Your task to perform on an android device: toggle pop-ups in chrome Image 0: 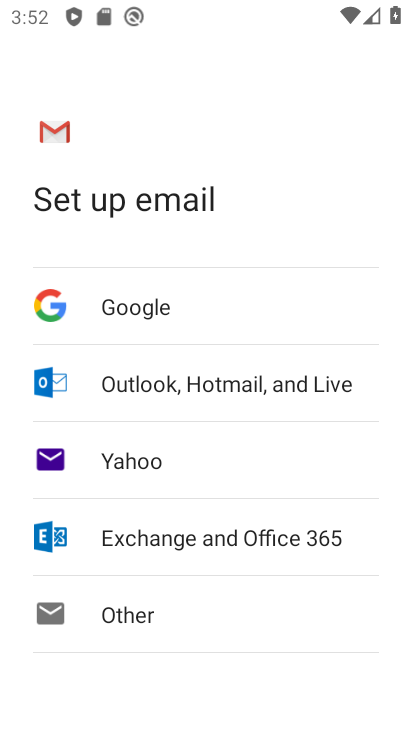
Step 0: press back button
Your task to perform on an android device: toggle pop-ups in chrome Image 1: 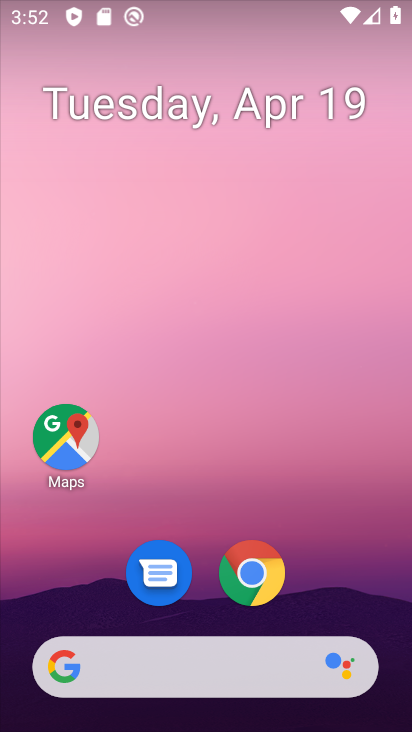
Step 1: click (239, 578)
Your task to perform on an android device: toggle pop-ups in chrome Image 2: 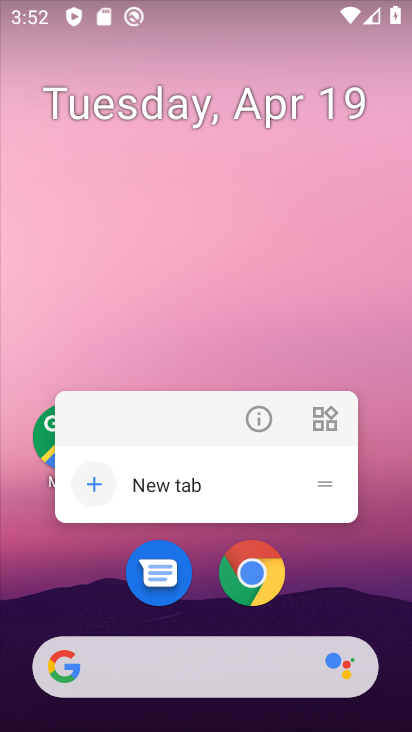
Step 2: click (249, 579)
Your task to perform on an android device: toggle pop-ups in chrome Image 3: 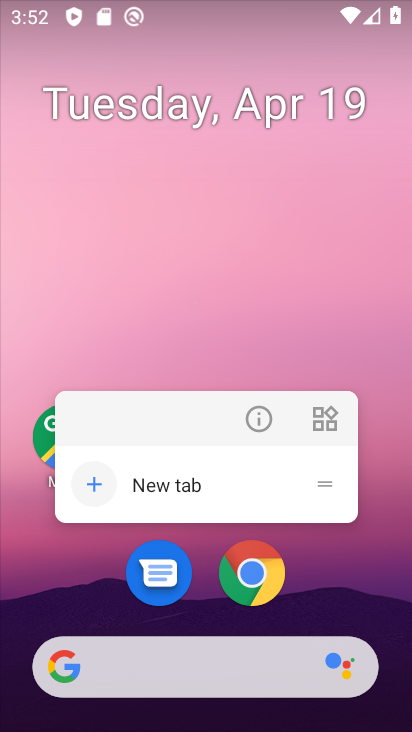
Step 3: click (262, 591)
Your task to perform on an android device: toggle pop-ups in chrome Image 4: 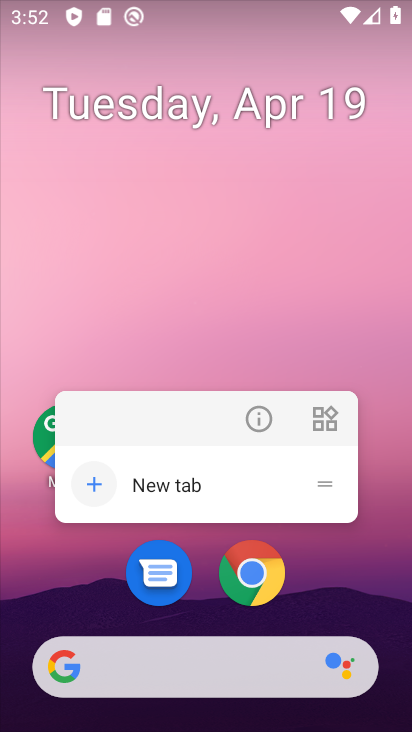
Step 4: click (262, 591)
Your task to perform on an android device: toggle pop-ups in chrome Image 5: 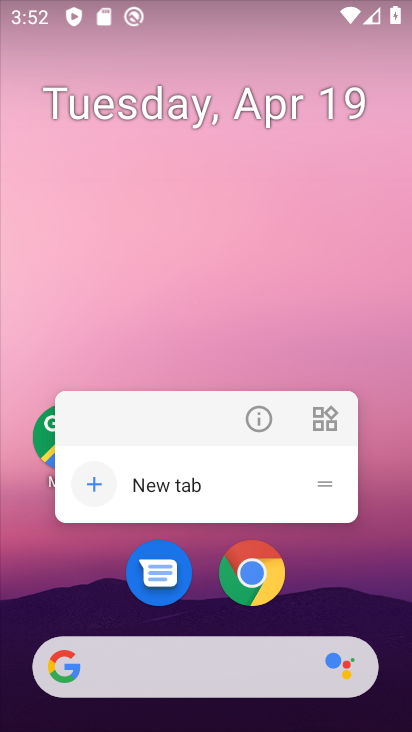
Step 5: click (261, 573)
Your task to perform on an android device: toggle pop-ups in chrome Image 6: 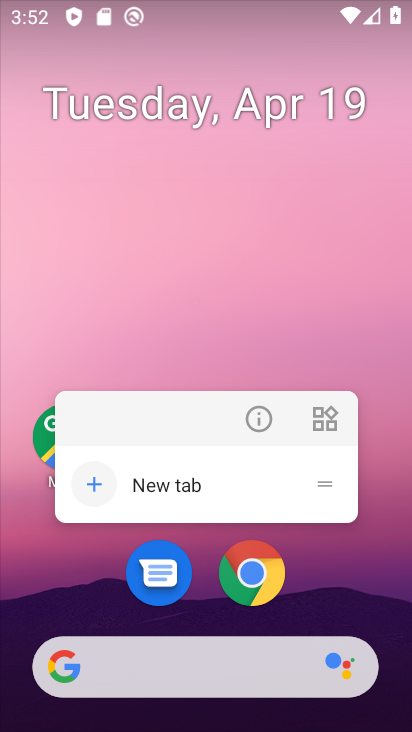
Step 6: click (254, 566)
Your task to perform on an android device: toggle pop-ups in chrome Image 7: 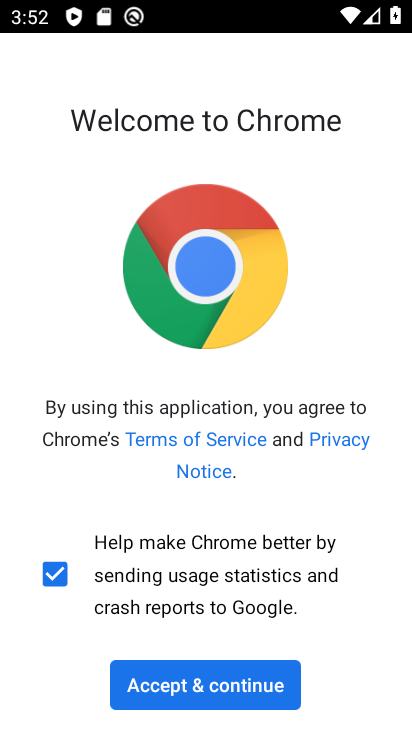
Step 7: click (214, 685)
Your task to perform on an android device: toggle pop-ups in chrome Image 8: 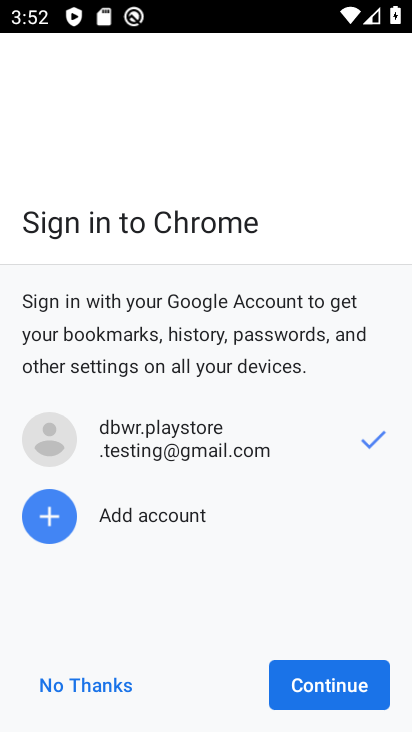
Step 8: click (331, 689)
Your task to perform on an android device: toggle pop-ups in chrome Image 9: 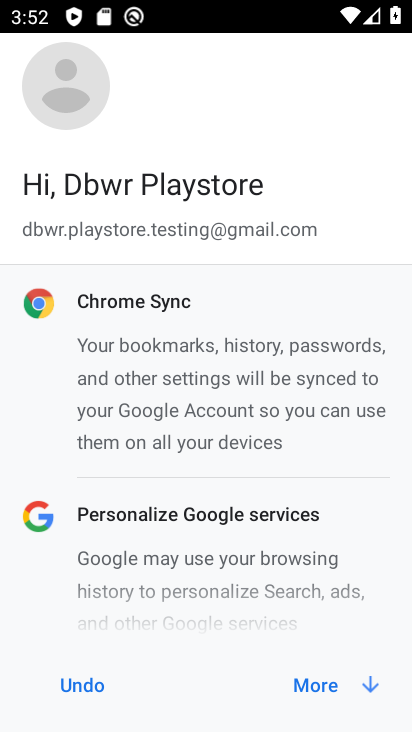
Step 9: click (331, 689)
Your task to perform on an android device: toggle pop-ups in chrome Image 10: 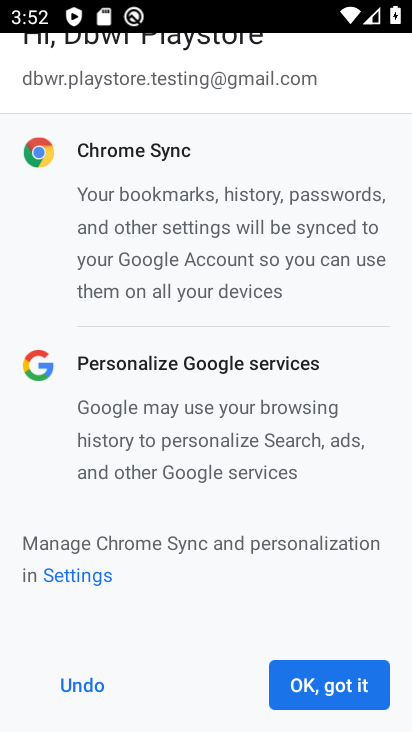
Step 10: click (331, 689)
Your task to perform on an android device: toggle pop-ups in chrome Image 11: 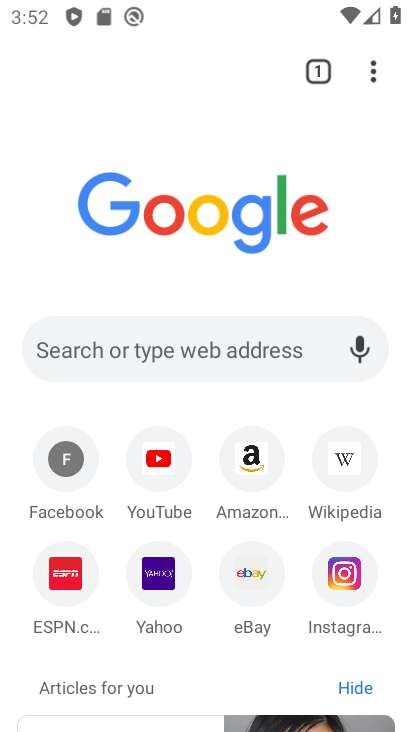
Step 11: click (390, 67)
Your task to perform on an android device: toggle pop-ups in chrome Image 12: 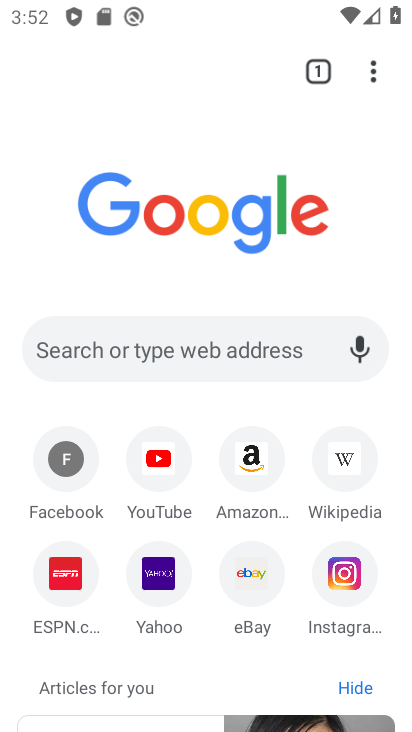
Step 12: drag from (385, 70) to (218, 608)
Your task to perform on an android device: toggle pop-ups in chrome Image 13: 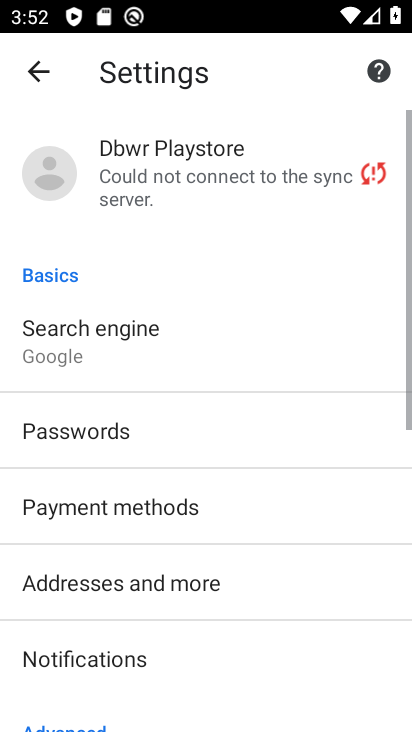
Step 13: drag from (198, 604) to (289, 265)
Your task to perform on an android device: toggle pop-ups in chrome Image 14: 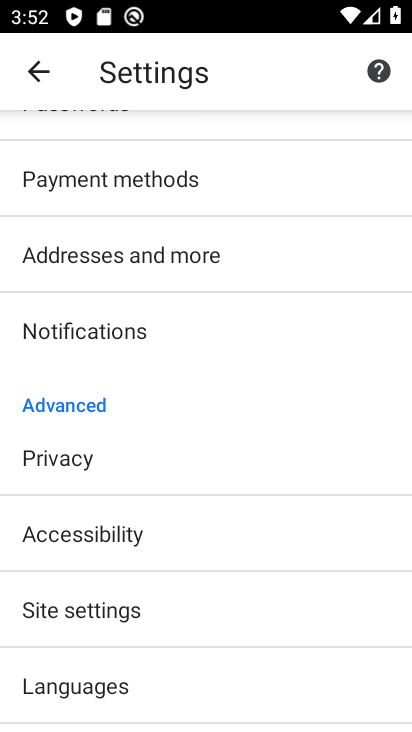
Step 14: click (151, 612)
Your task to perform on an android device: toggle pop-ups in chrome Image 15: 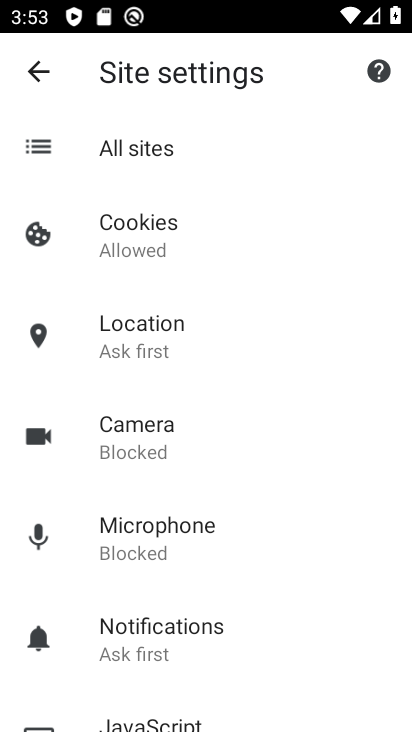
Step 15: drag from (202, 577) to (285, 281)
Your task to perform on an android device: toggle pop-ups in chrome Image 16: 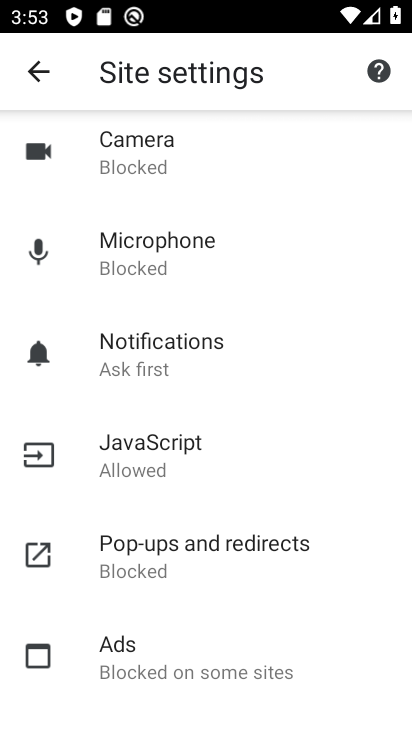
Step 16: click (223, 539)
Your task to perform on an android device: toggle pop-ups in chrome Image 17: 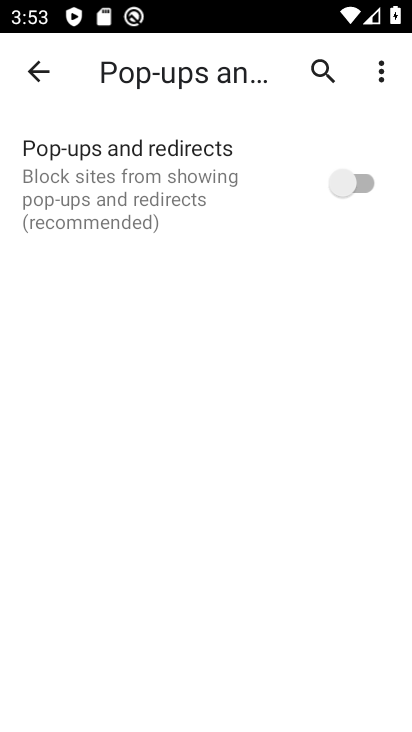
Step 17: click (372, 176)
Your task to perform on an android device: toggle pop-ups in chrome Image 18: 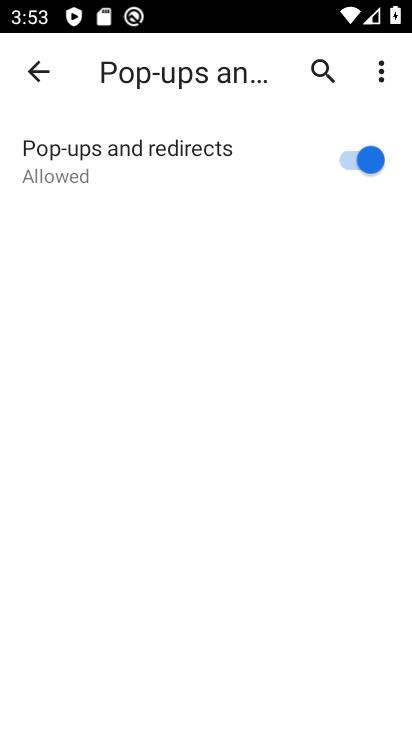
Step 18: task complete